Your task to perform on an android device: change alarm snooze length Image 0: 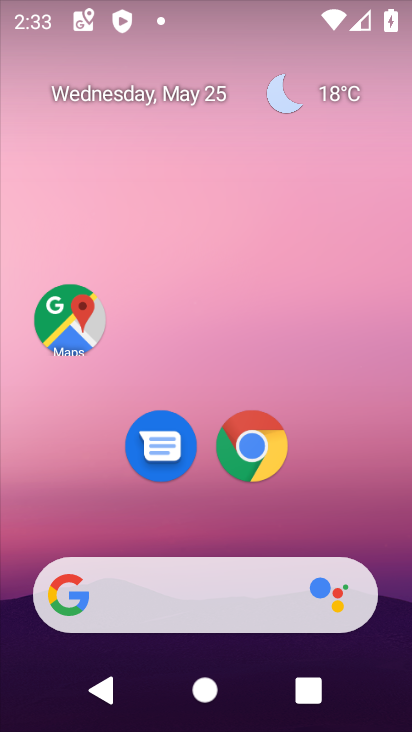
Step 0: drag from (152, 592) to (175, 71)
Your task to perform on an android device: change alarm snooze length Image 1: 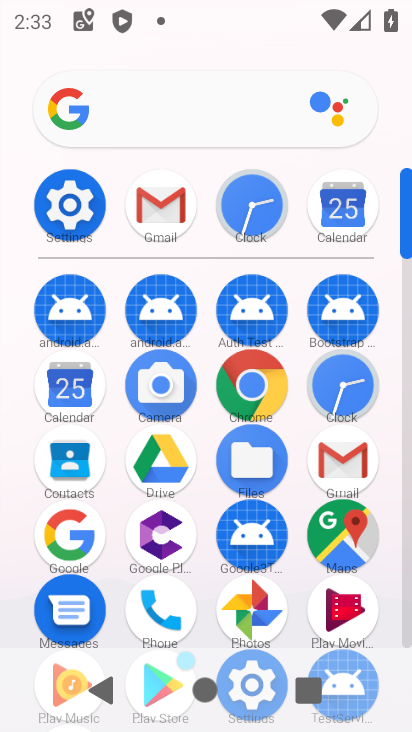
Step 1: click (331, 376)
Your task to perform on an android device: change alarm snooze length Image 2: 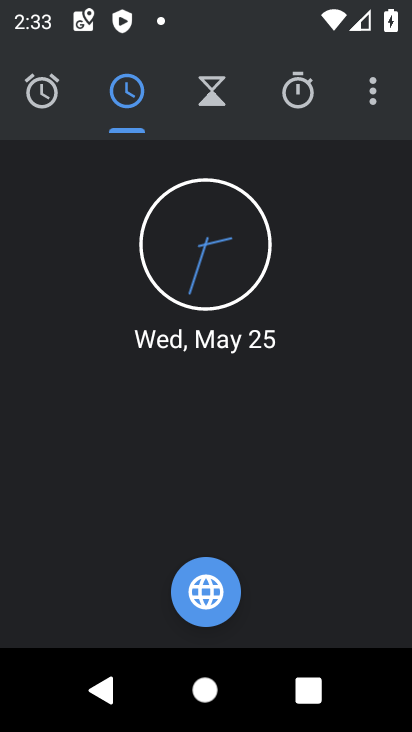
Step 2: click (359, 106)
Your task to perform on an android device: change alarm snooze length Image 3: 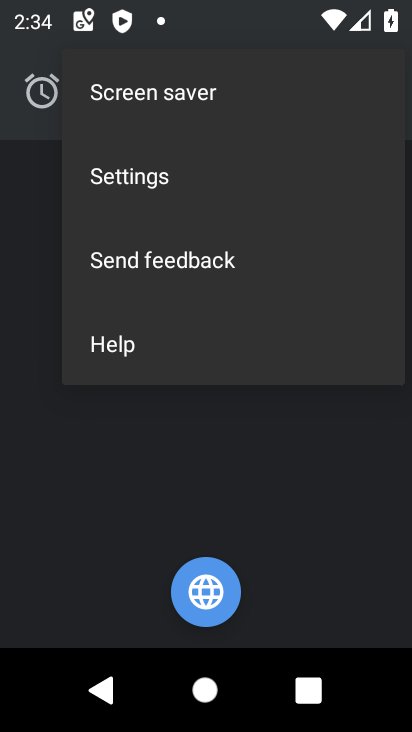
Step 3: click (152, 155)
Your task to perform on an android device: change alarm snooze length Image 4: 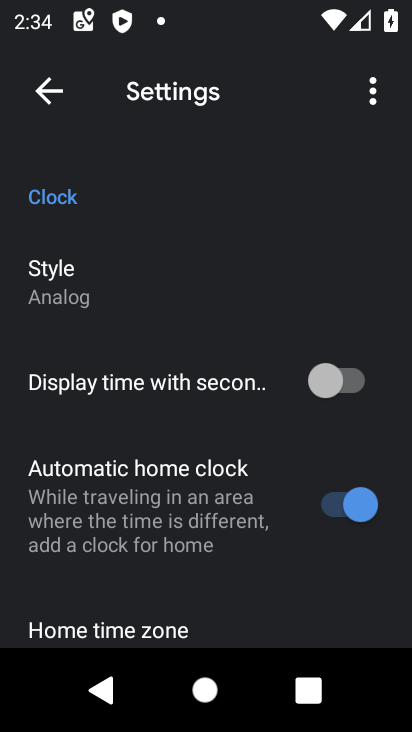
Step 4: drag from (96, 576) to (104, 266)
Your task to perform on an android device: change alarm snooze length Image 5: 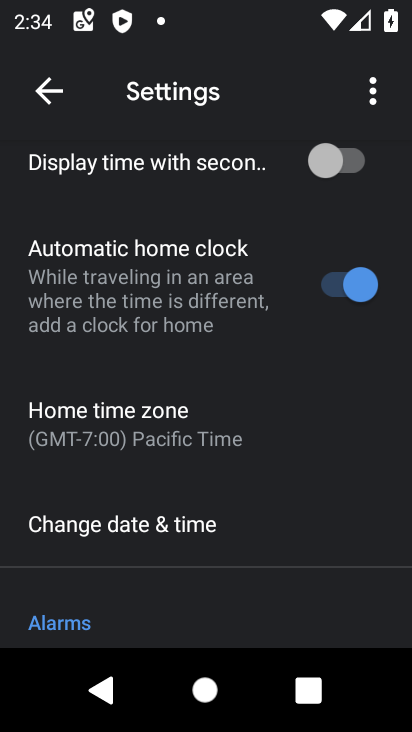
Step 5: drag from (159, 553) to (155, 4)
Your task to perform on an android device: change alarm snooze length Image 6: 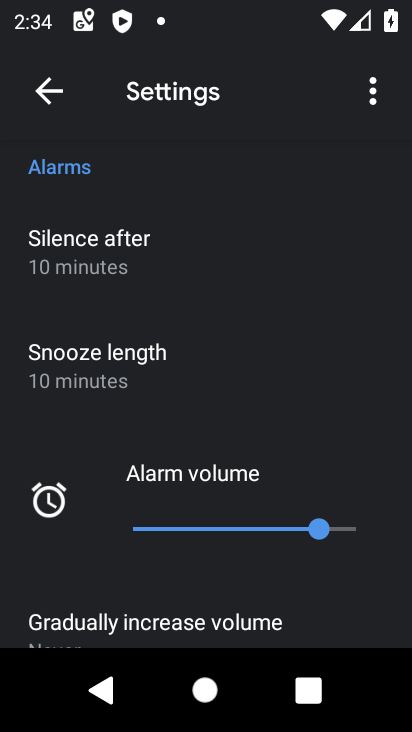
Step 6: click (108, 391)
Your task to perform on an android device: change alarm snooze length Image 7: 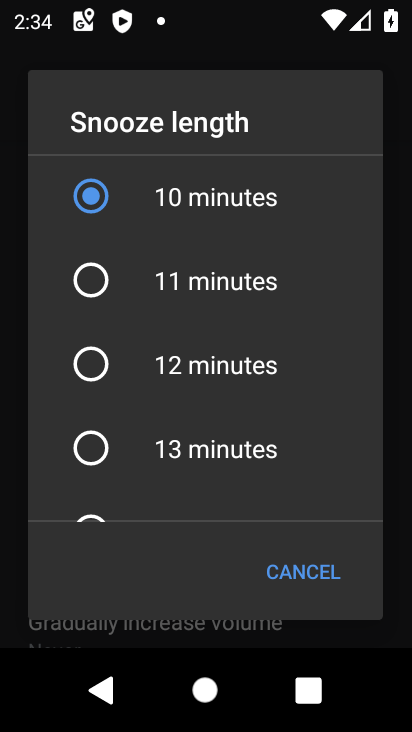
Step 7: click (105, 374)
Your task to perform on an android device: change alarm snooze length Image 8: 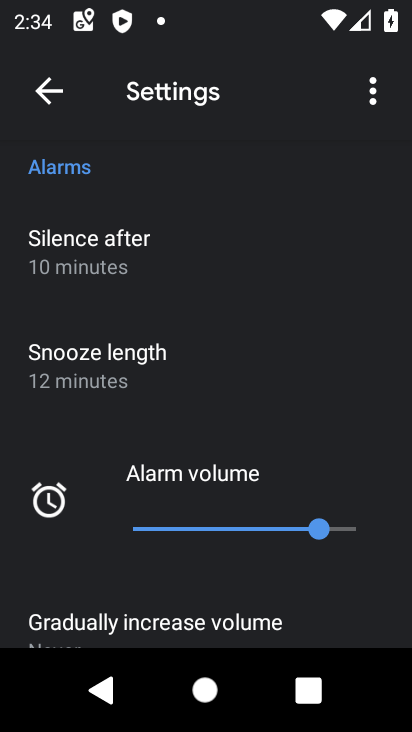
Step 8: task complete